Your task to perform on an android device: check data usage Image 0: 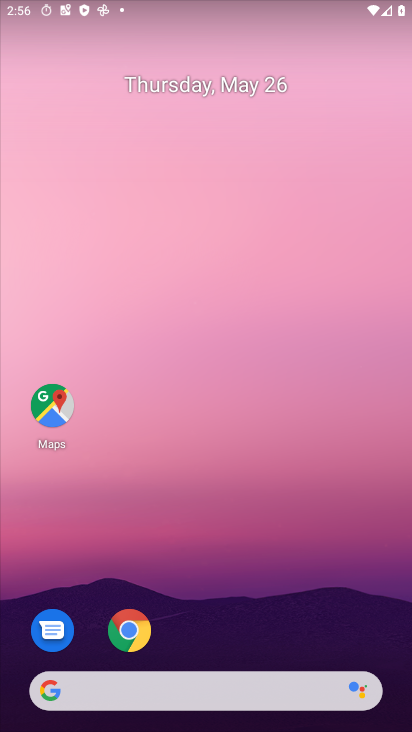
Step 0: drag from (225, 624) to (240, 157)
Your task to perform on an android device: check data usage Image 1: 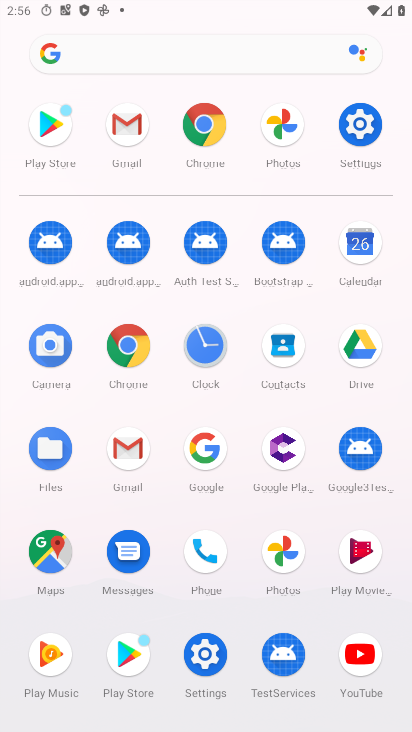
Step 1: click (359, 133)
Your task to perform on an android device: check data usage Image 2: 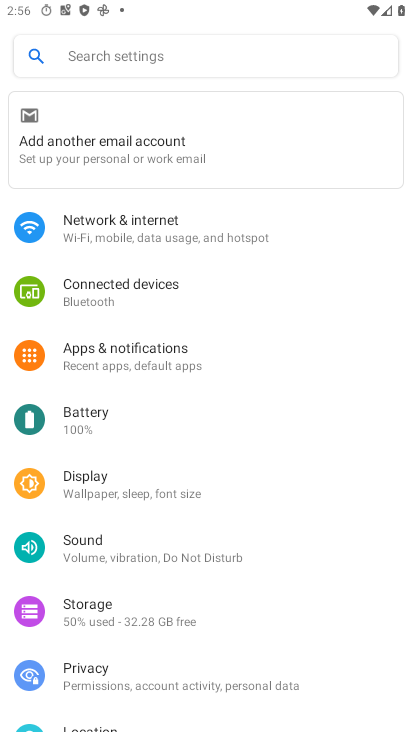
Step 2: click (199, 224)
Your task to perform on an android device: check data usage Image 3: 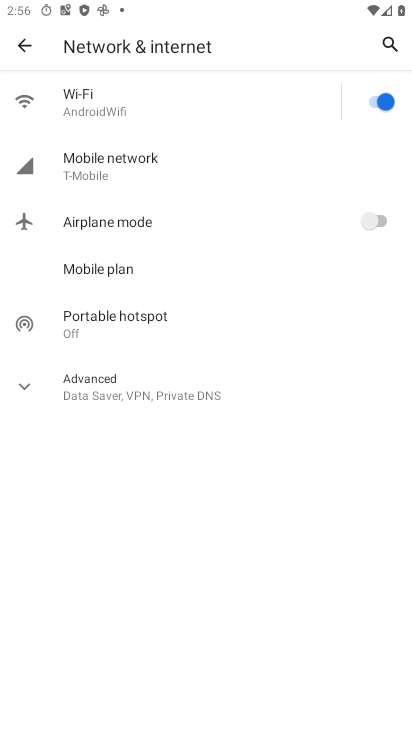
Step 3: click (124, 173)
Your task to perform on an android device: check data usage Image 4: 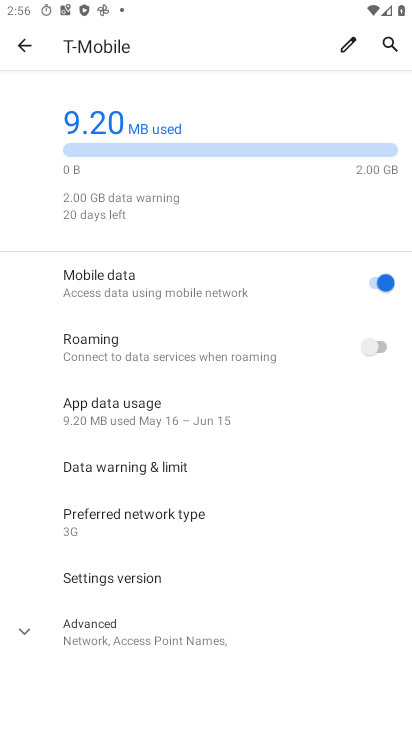
Step 4: task complete